Your task to perform on an android device: Open Chrome and go to the settings page Image 0: 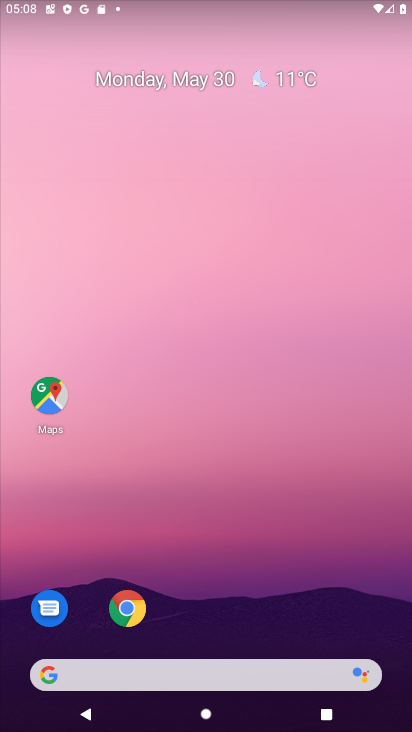
Step 0: click (143, 607)
Your task to perform on an android device: Open Chrome and go to the settings page Image 1: 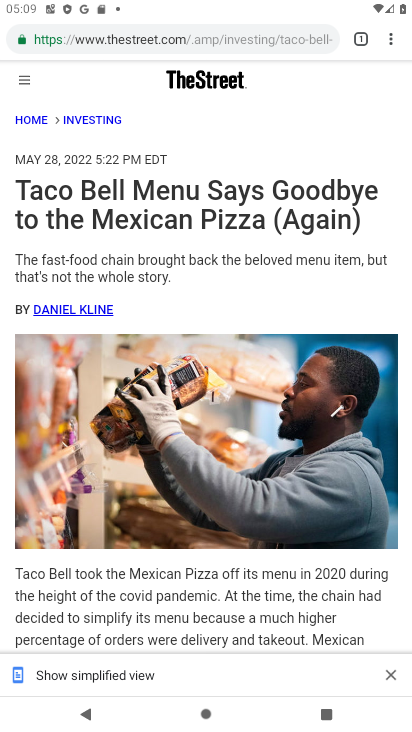
Step 1: click (391, 46)
Your task to perform on an android device: Open Chrome and go to the settings page Image 2: 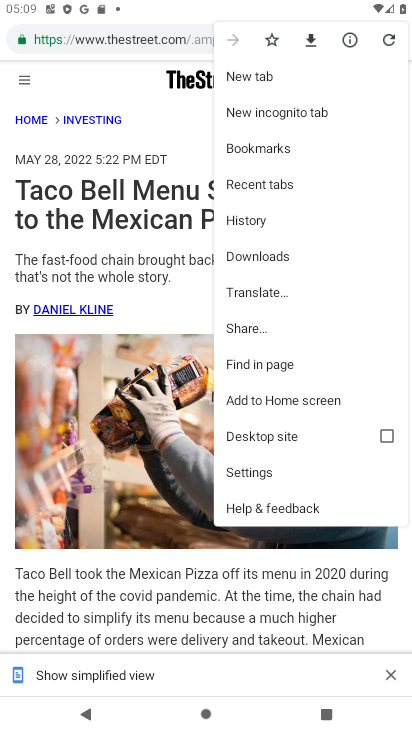
Step 2: click (246, 470)
Your task to perform on an android device: Open Chrome and go to the settings page Image 3: 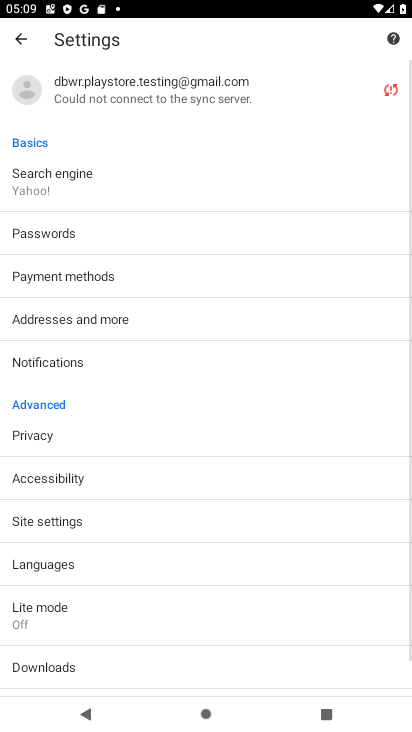
Step 3: task complete